Your task to perform on an android device: Search for shimano brake pads on Walmart Image 0: 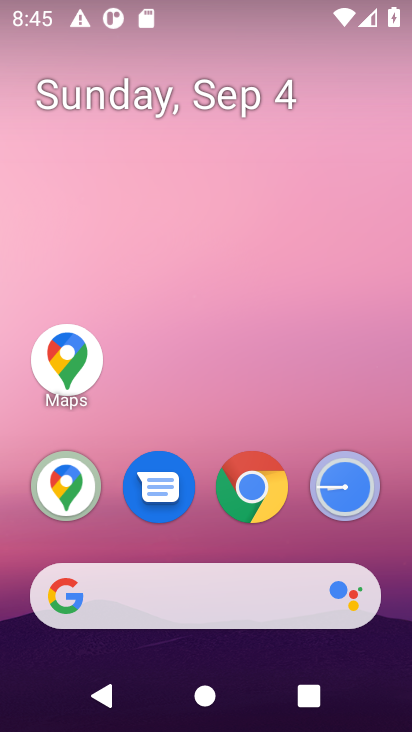
Step 0: click (239, 522)
Your task to perform on an android device: Search for shimano brake pads on Walmart Image 1: 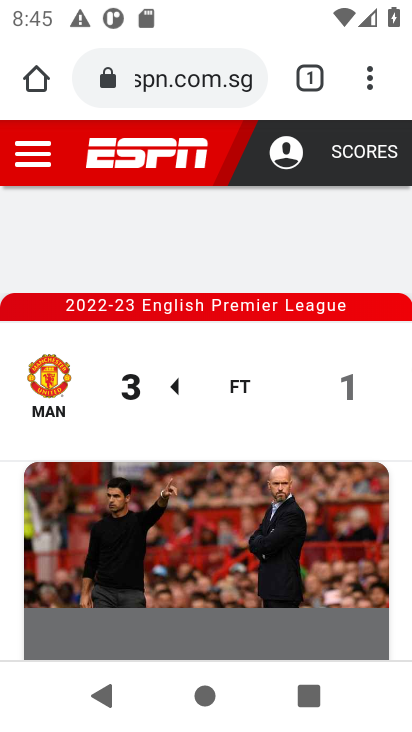
Step 1: press home button
Your task to perform on an android device: Search for shimano brake pads on Walmart Image 2: 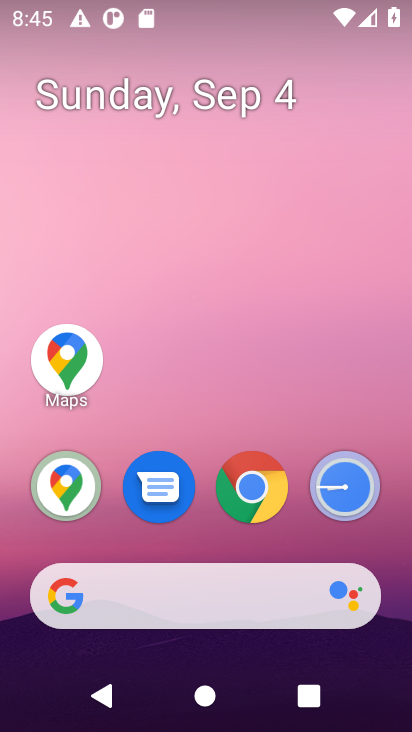
Step 2: click (144, 496)
Your task to perform on an android device: Search for shimano brake pads on Walmart Image 3: 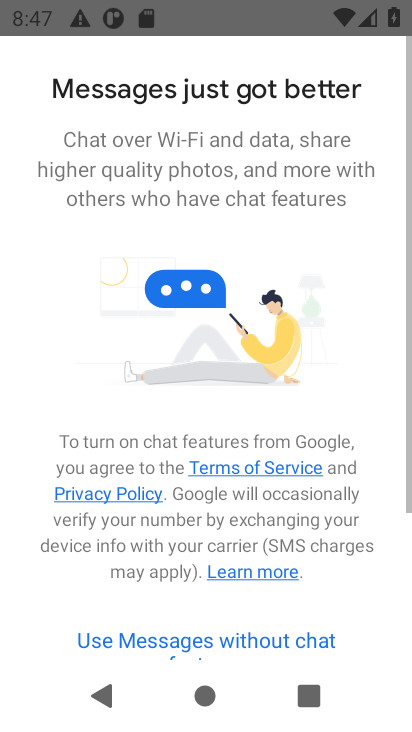
Step 3: task complete